Your task to perform on an android device: Open CNN.com Image 0: 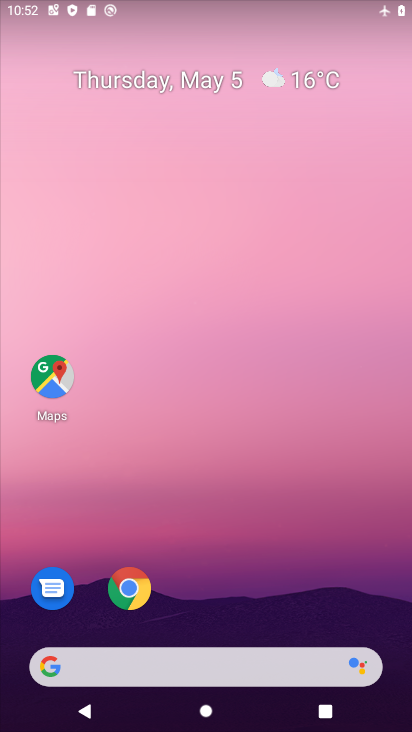
Step 0: drag from (258, 587) to (336, 70)
Your task to perform on an android device: Open CNN.com Image 1: 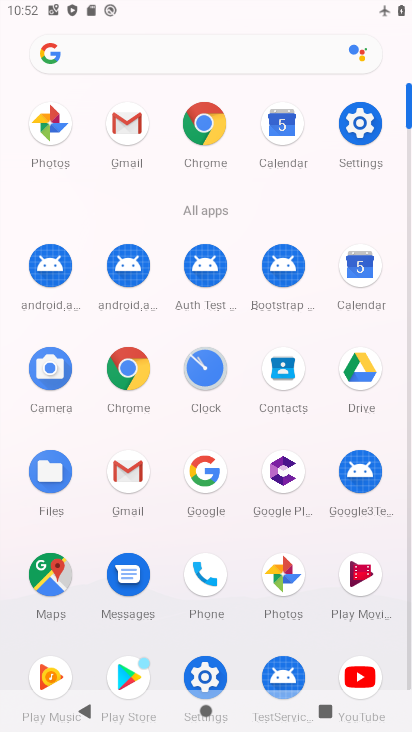
Step 1: click (218, 137)
Your task to perform on an android device: Open CNN.com Image 2: 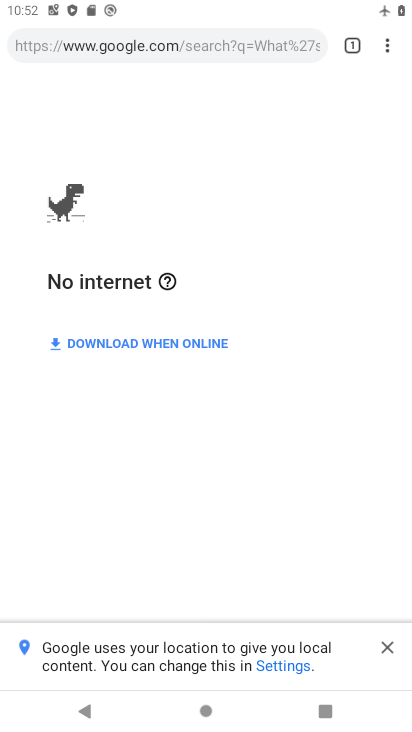
Step 2: click (215, 44)
Your task to perform on an android device: Open CNN.com Image 3: 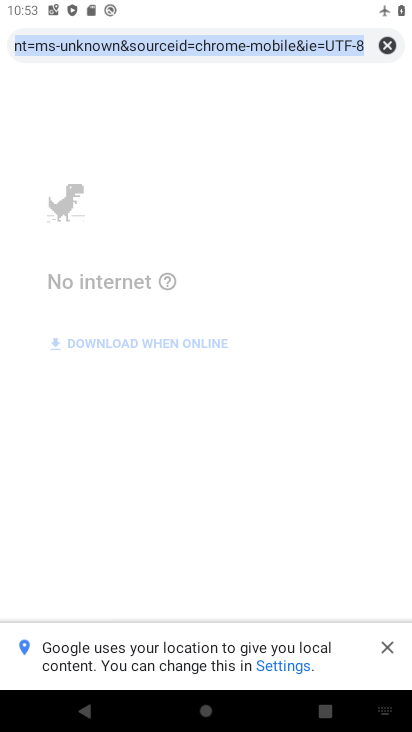
Step 3: type "CNN.com"
Your task to perform on an android device: Open CNN.com Image 4: 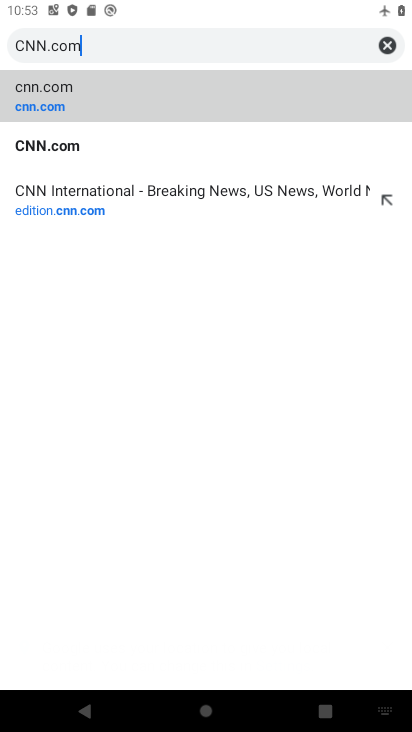
Step 4: click (29, 110)
Your task to perform on an android device: Open CNN.com Image 5: 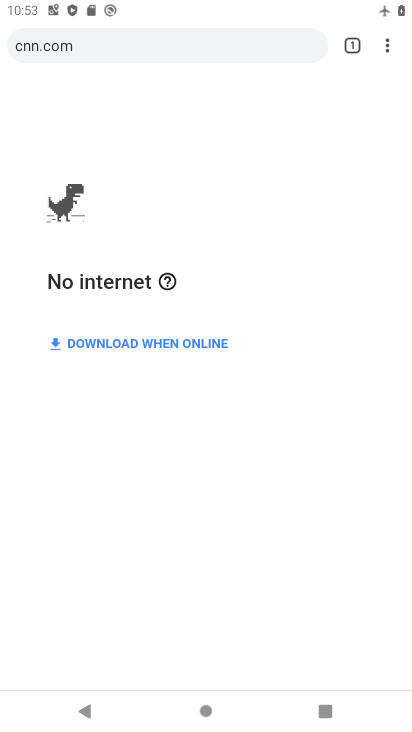
Step 5: task complete